Your task to perform on an android device: Open my contact list Image 0: 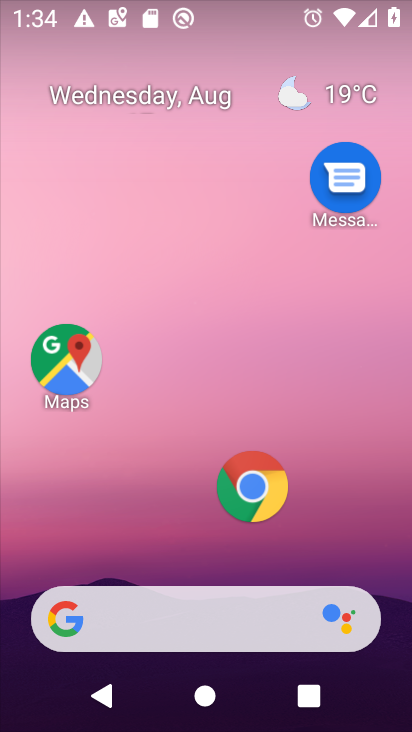
Step 0: drag from (143, 544) to (218, 10)
Your task to perform on an android device: Open my contact list Image 1: 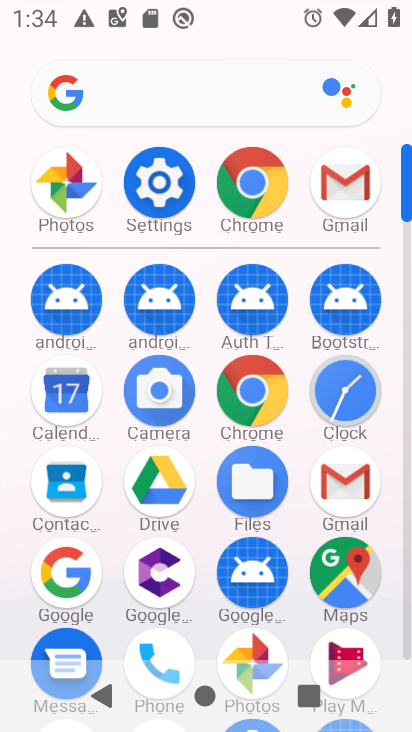
Step 1: click (54, 499)
Your task to perform on an android device: Open my contact list Image 2: 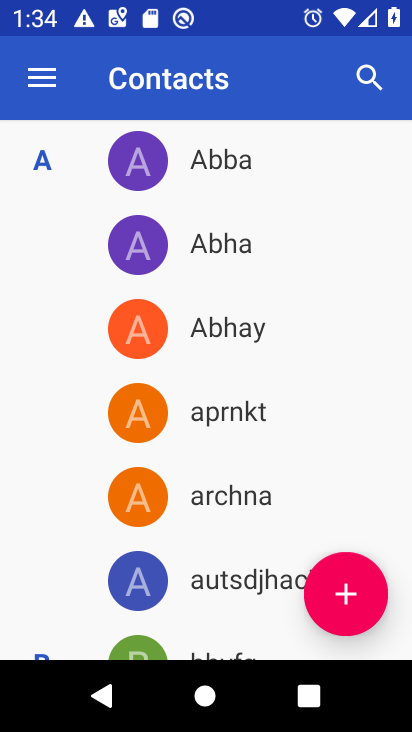
Step 2: task complete